Your task to perform on an android device: make emails show in primary in the gmail app Image 0: 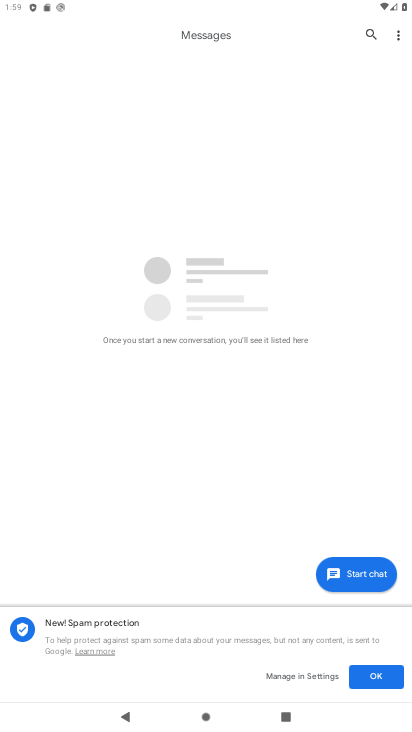
Step 0: press home button
Your task to perform on an android device: make emails show in primary in the gmail app Image 1: 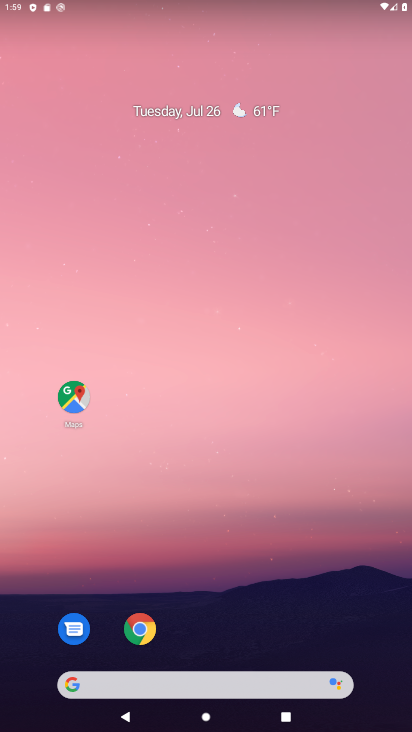
Step 1: drag from (229, 547) to (302, 32)
Your task to perform on an android device: make emails show in primary in the gmail app Image 2: 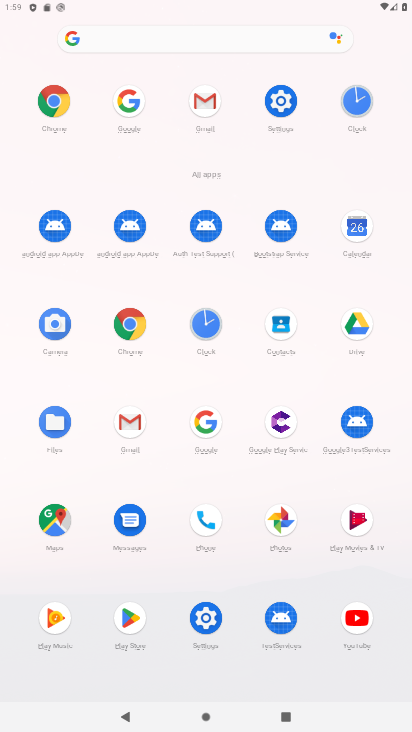
Step 2: click (197, 101)
Your task to perform on an android device: make emails show in primary in the gmail app Image 3: 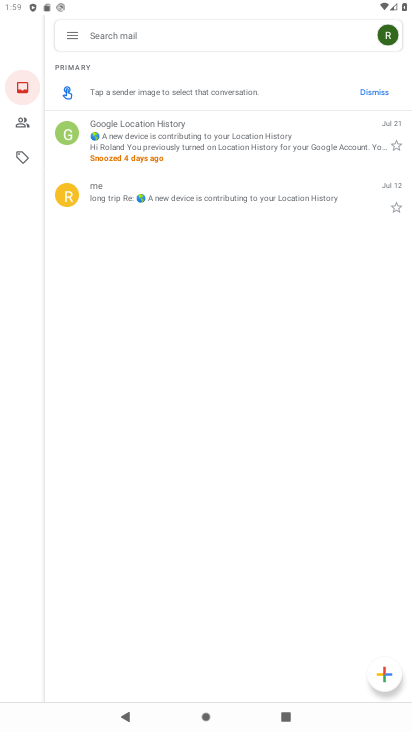
Step 3: click (71, 32)
Your task to perform on an android device: make emails show in primary in the gmail app Image 4: 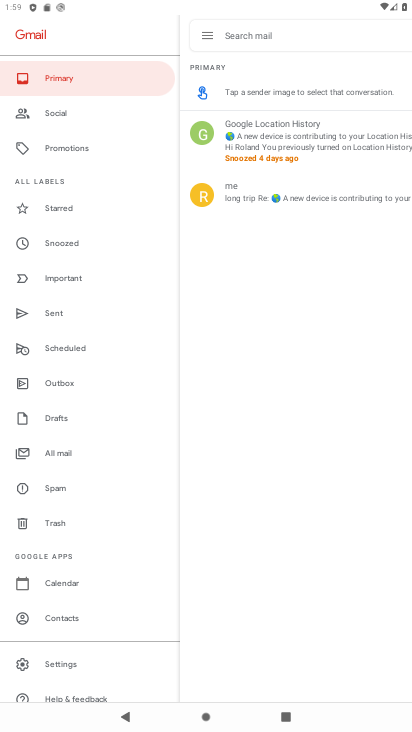
Step 4: click (72, 80)
Your task to perform on an android device: make emails show in primary in the gmail app Image 5: 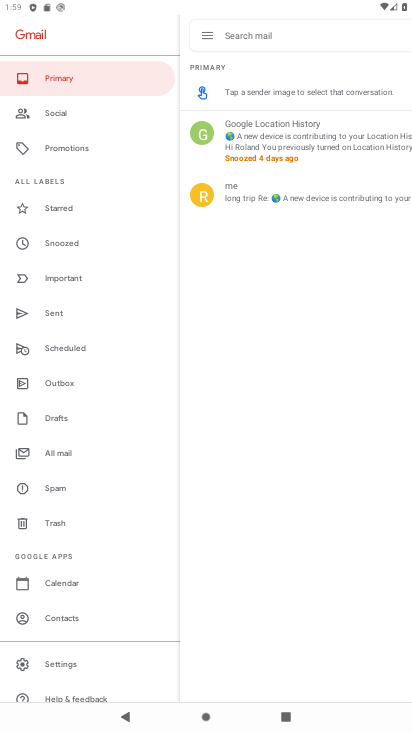
Step 5: click (200, 34)
Your task to perform on an android device: make emails show in primary in the gmail app Image 6: 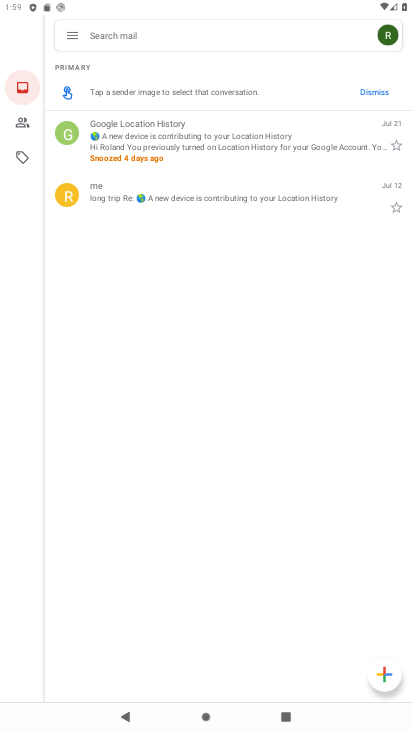
Step 6: task complete